Your task to perform on an android device: toggle priority inbox in the gmail app Image 0: 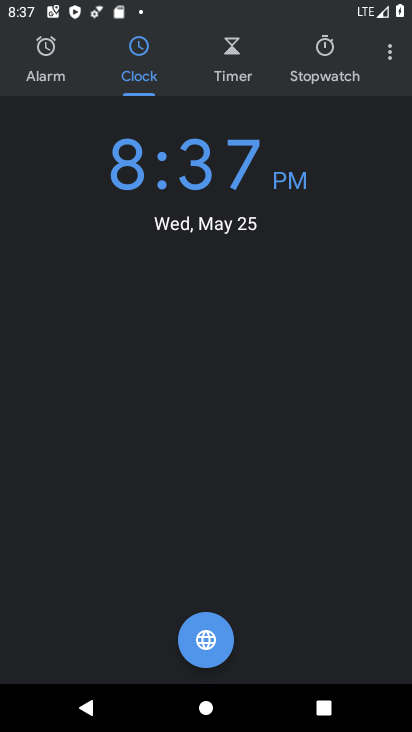
Step 0: press home button
Your task to perform on an android device: toggle priority inbox in the gmail app Image 1: 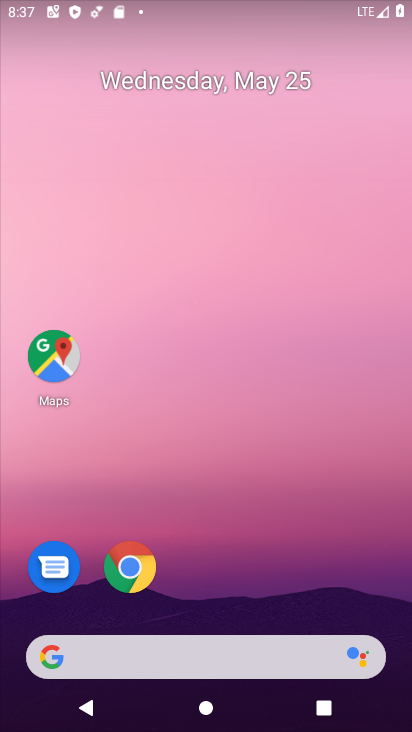
Step 1: drag from (237, 552) to (255, 0)
Your task to perform on an android device: toggle priority inbox in the gmail app Image 2: 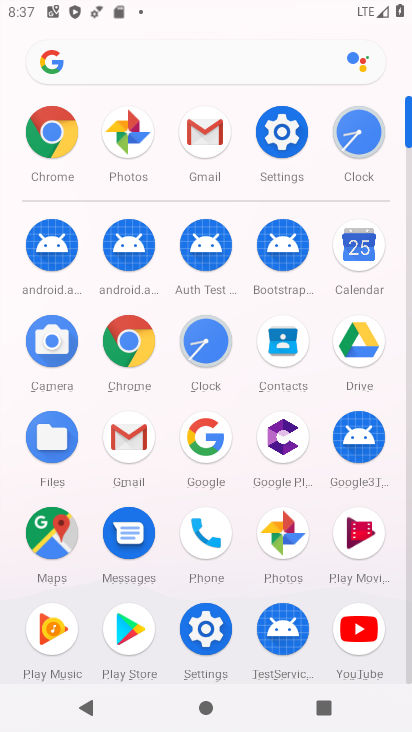
Step 2: click (204, 130)
Your task to perform on an android device: toggle priority inbox in the gmail app Image 3: 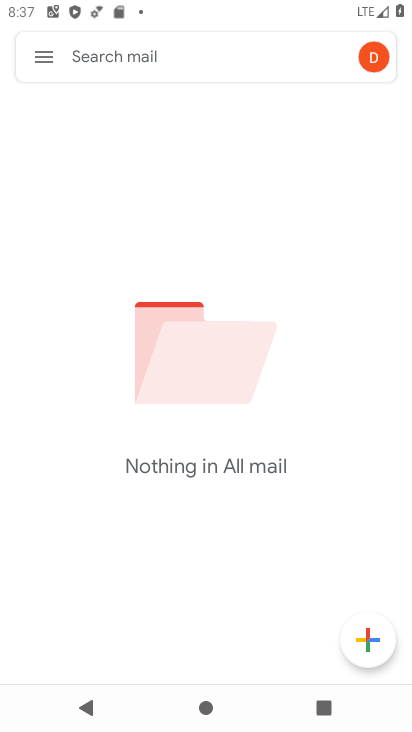
Step 3: click (48, 61)
Your task to perform on an android device: toggle priority inbox in the gmail app Image 4: 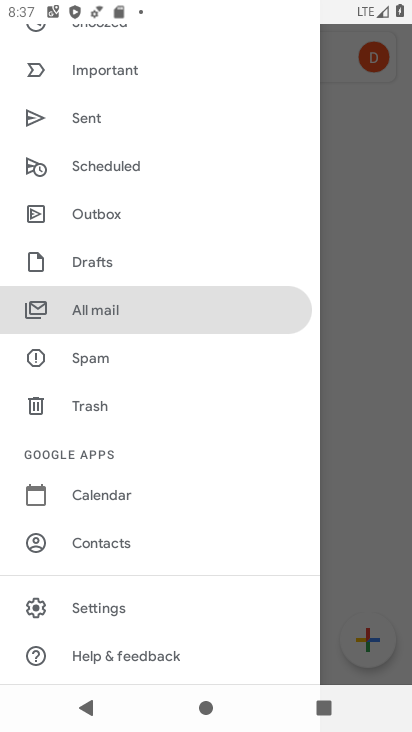
Step 4: click (100, 610)
Your task to perform on an android device: toggle priority inbox in the gmail app Image 5: 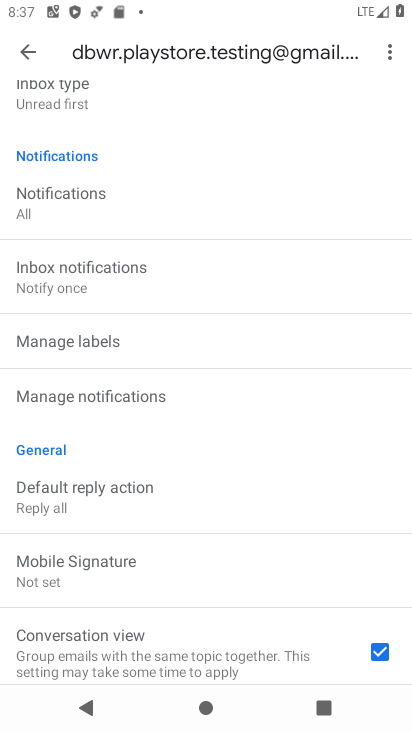
Step 5: drag from (186, 171) to (201, 409)
Your task to perform on an android device: toggle priority inbox in the gmail app Image 6: 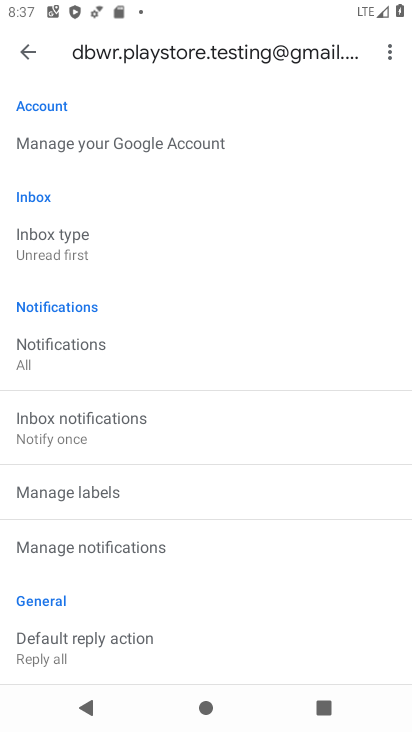
Step 6: click (48, 236)
Your task to perform on an android device: toggle priority inbox in the gmail app Image 7: 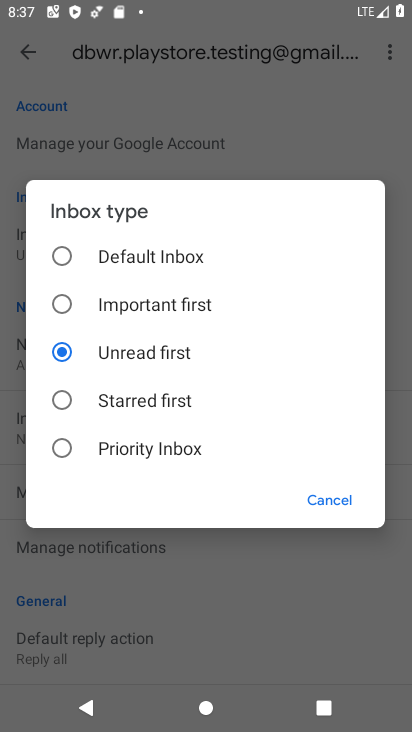
Step 7: click (63, 445)
Your task to perform on an android device: toggle priority inbox in the gmail app Image 8: 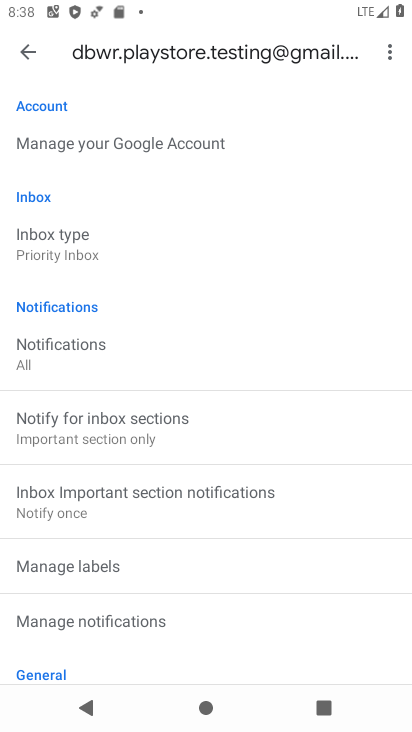
Step 8: task complete